Your task to perform on an android device: What's the weather today? Image 0: 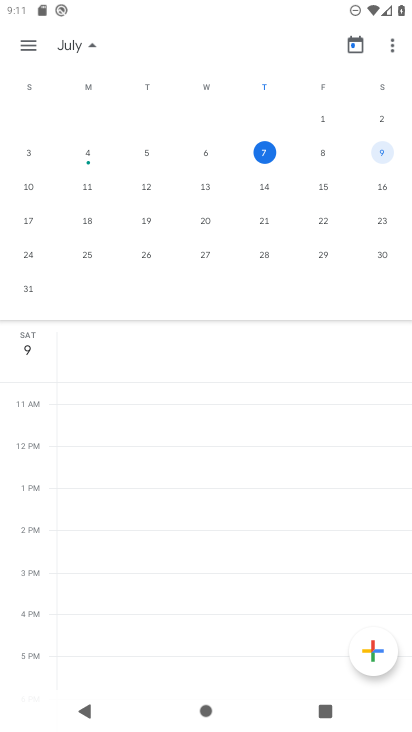
Step 0: press home button
Your task to perform on an android device: What's the weather today? Image 1: 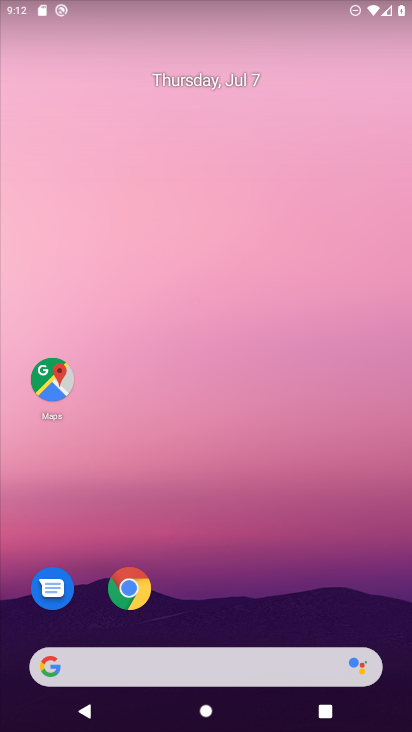
Step 1: click (166, 650)
Your task to perform on an android device: What's the weather today? Image 2: 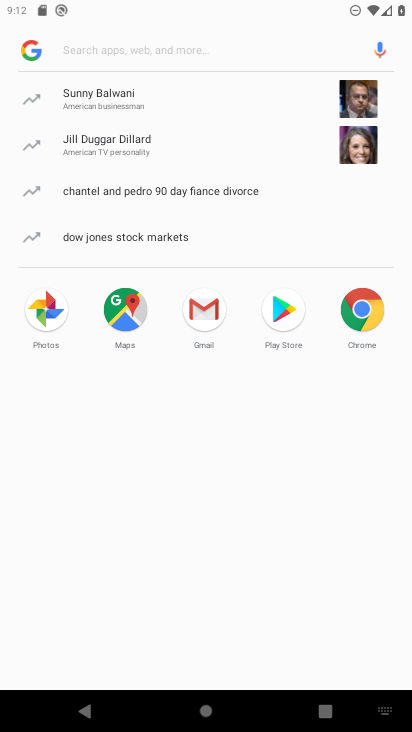
Step 2: type "weather"
Your task to perform on an android device: What's the weather today? Image 3: 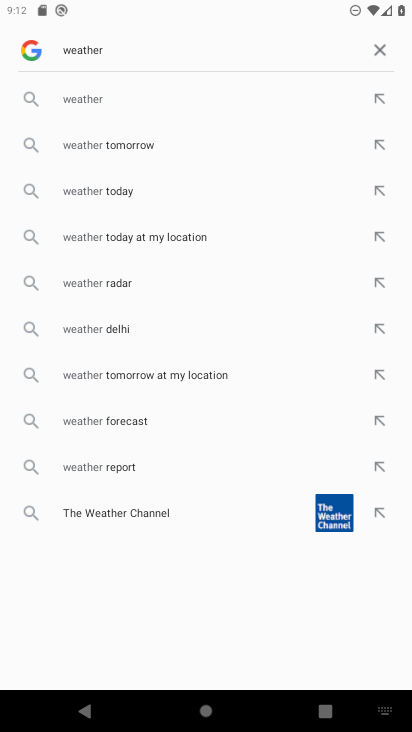
Step 3: click (104, 80)
Your task to perform on an android device: What's the weather today? Image 4: 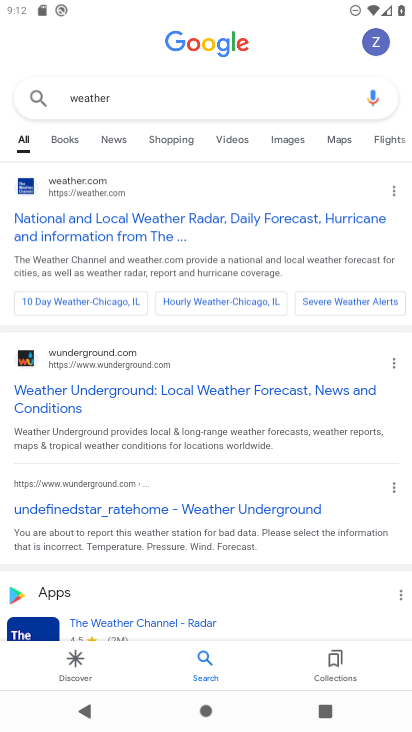
Step 4: click (129, 142)
Your task to perform on an android device: What's the weather today? Image 5: 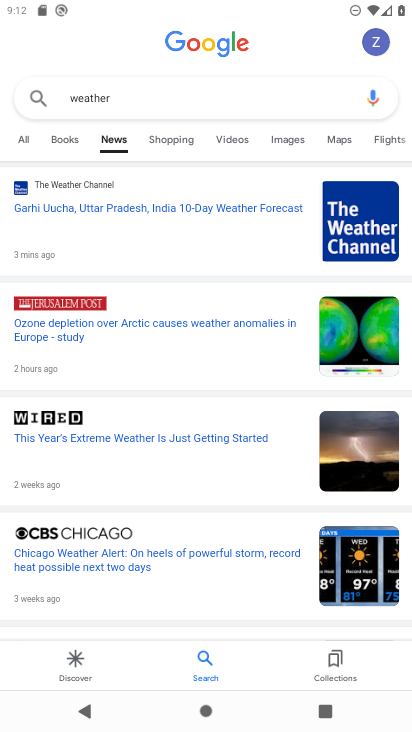
Step 5: click (18, 148)
Your task to perform on an android device: What's the weather today? Image 6: 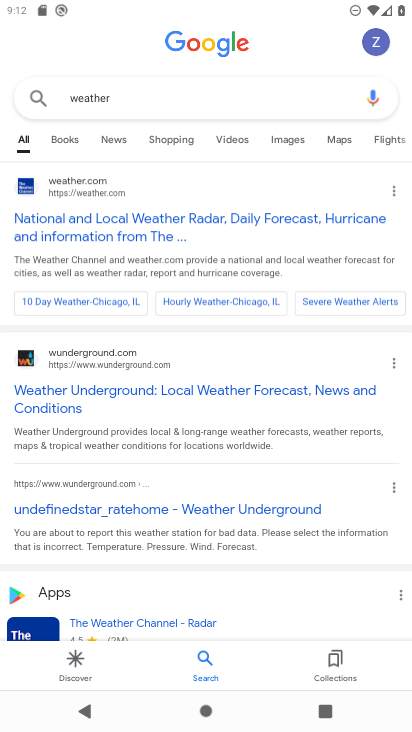
Step 6: drag from (128, 477) to (170, 161)
Your task to perform on an android device: What's the weather today? Image 7: 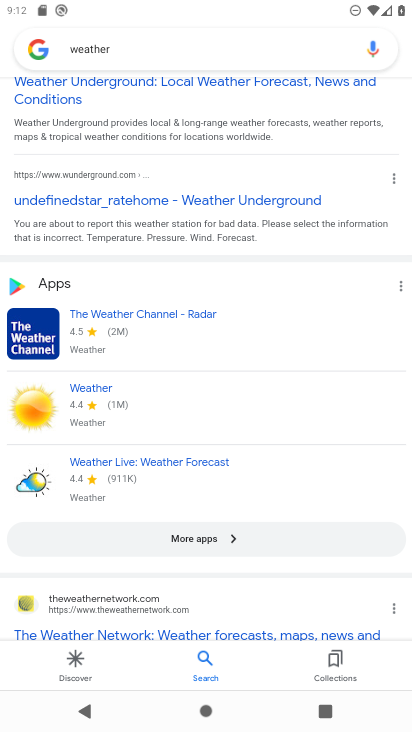
Step 7: drag from (223, 580) to (260, 329)
Your task to perform on an android device: What's the weather today? Image 8: 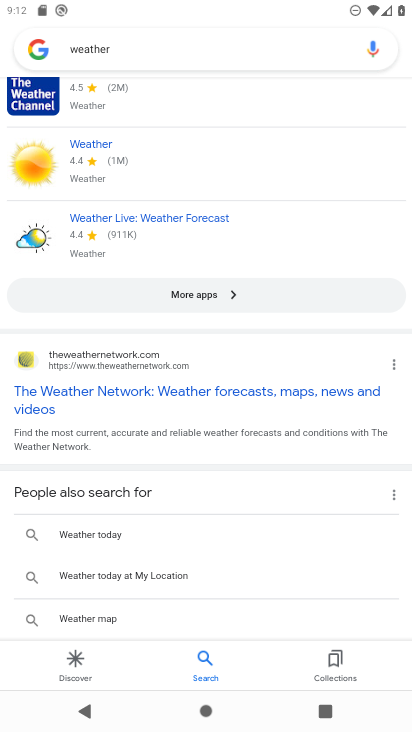
Step 8: click (134, 524)
Your task to perform on an android device: What's the weather today? Image 9: 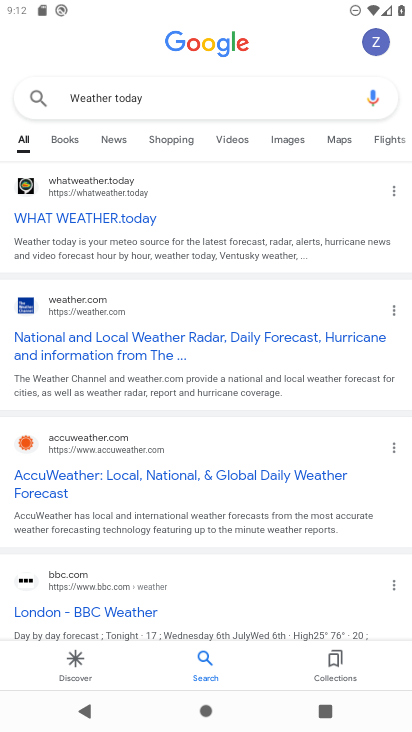
Step 9: drag from (180, 169) to (211, 605)
Your task to perform on an android device: What's the weather today? Image 10: 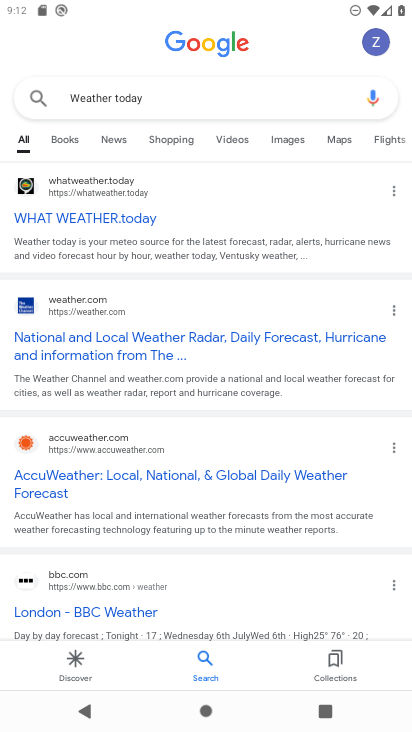
Step 10: click (96, 213)
Your task to perform on an android device: What's the weather today? Image 11: 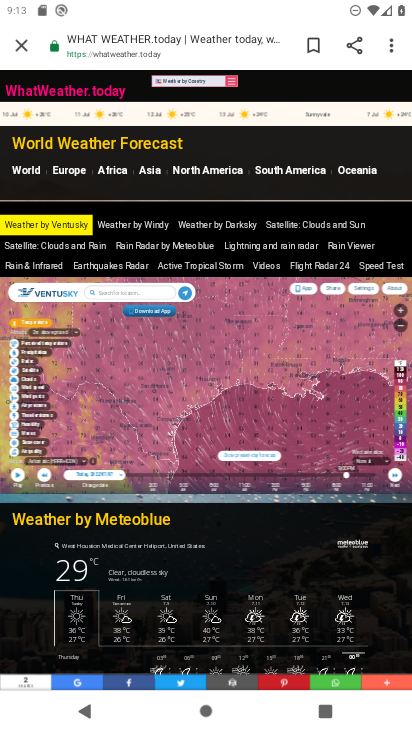
Step 11: task complete